Your task to perform on an android device: Open Yahoo.com Image 0: 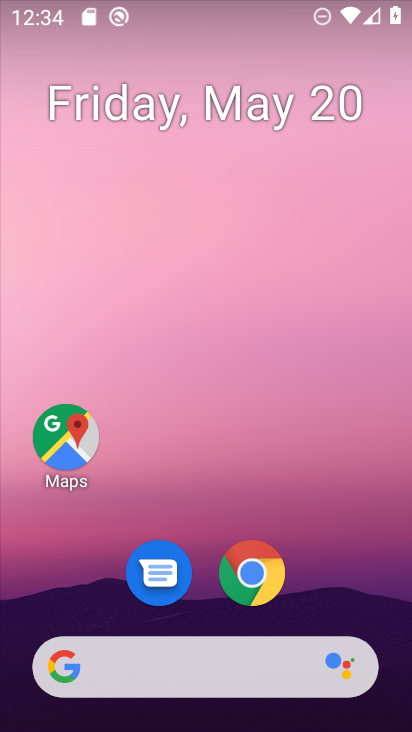
Step 0: click (250, 575)
Your task to perform on an android device: Open Yahoo.com Image 1: 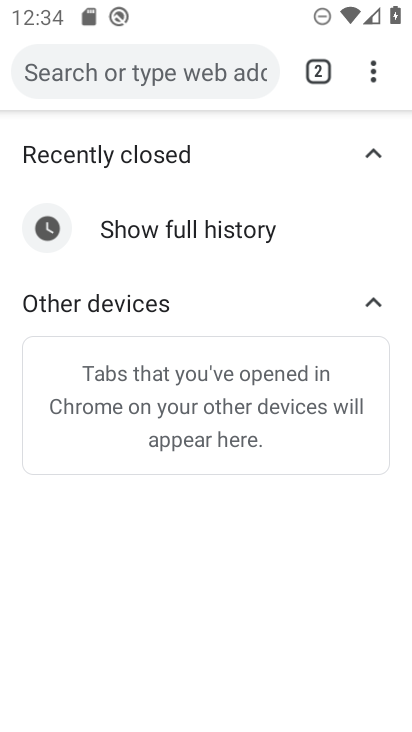
Step 1: click (372, 78)
Your task to perform on an android device: Open Yahoo.com Image 2: 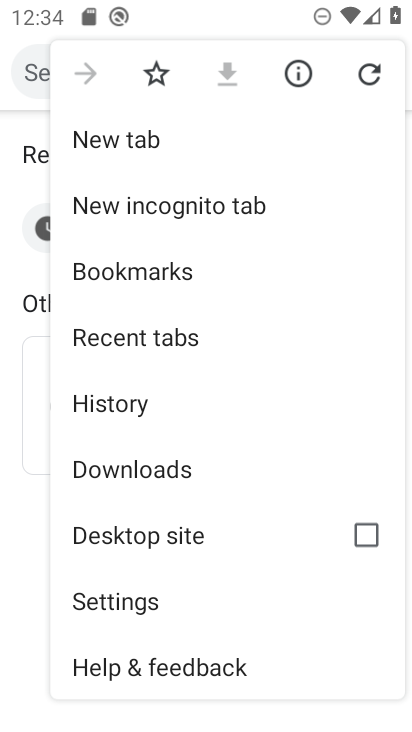
Step 2: click (140, 139)
Your task to perform on an android device: Open Yahoo.com Image 3: 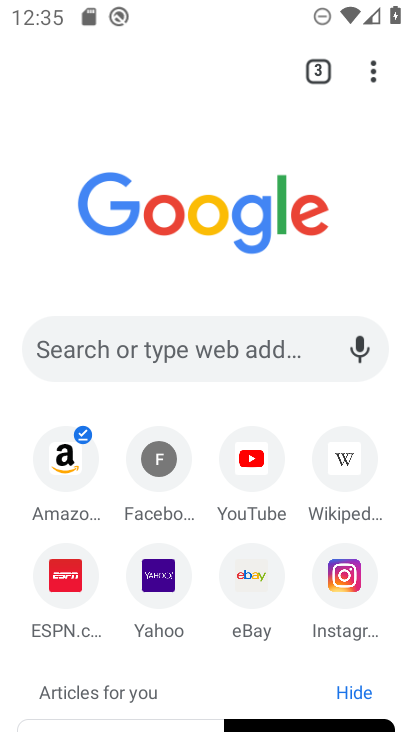
Step 3: click (148, 567)
Your task to perform on an android device: Open Yahoo.com Image 4: 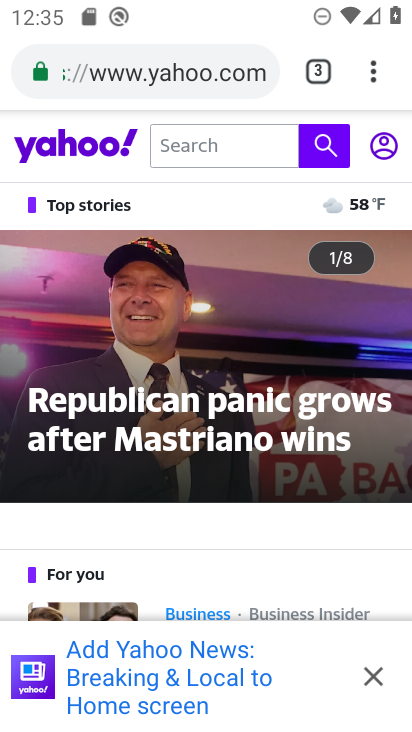
Step 4: task complete